Your task to perform on an android device: Open network settings Image 0: 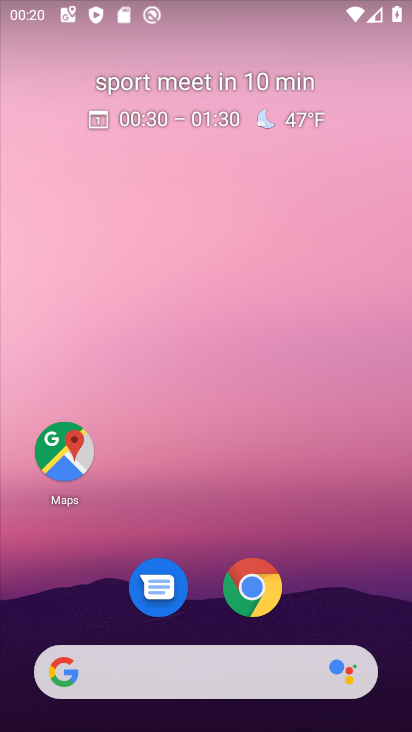
Step 0: drag from (383, 608) to (348, 193)
Your task to perform on an android device: Open network settings Image 1: 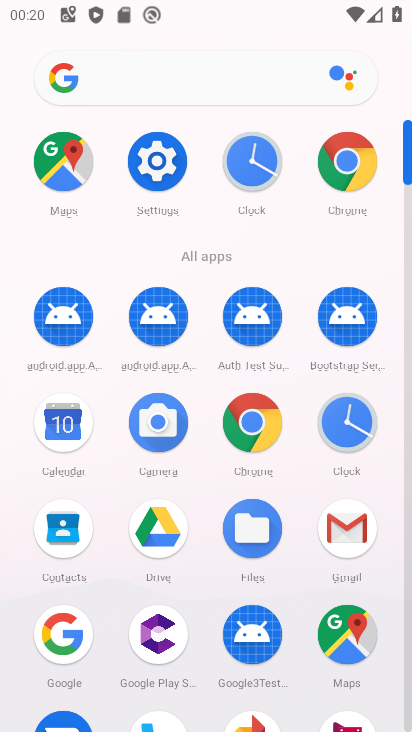
Step 1: click (156, 158)
Your task to perform on an android device: Open network settings Image 2: 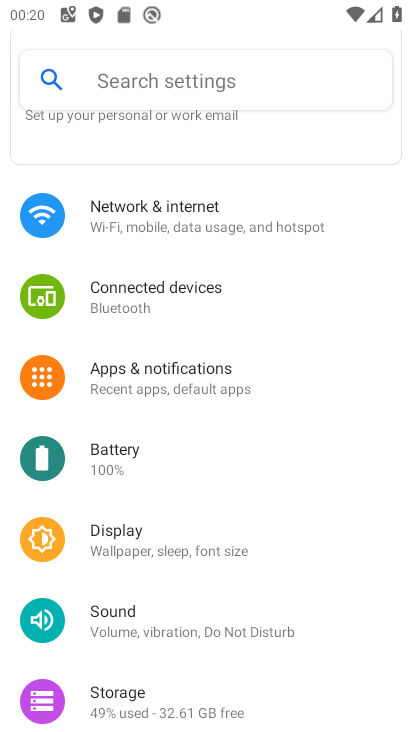
Step 2: click (183, 212)
Your task to perform on an android device: Open network settings Image 3: 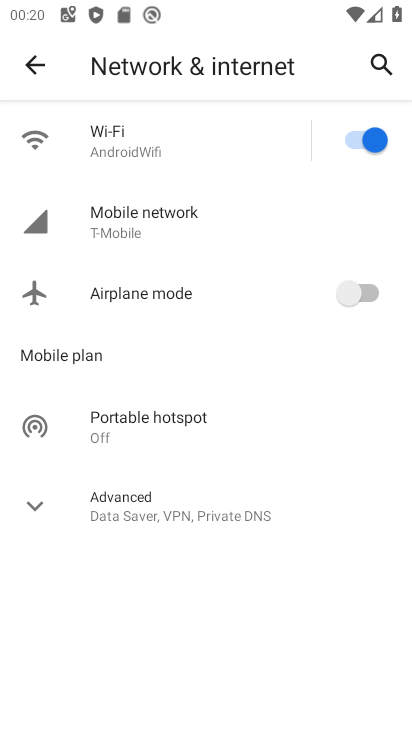
Step 3: click (109, 224)
Your task to perform on an android device: Open network settings Image 4: 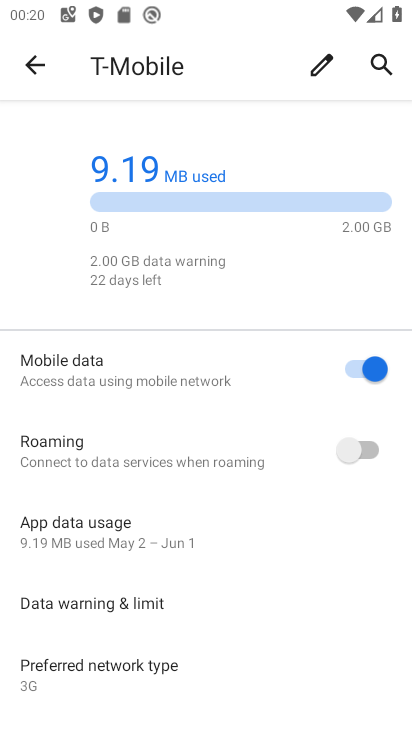
Step 4: task complete